Your task to perform on an android device: Open Reddit.com Image 0: 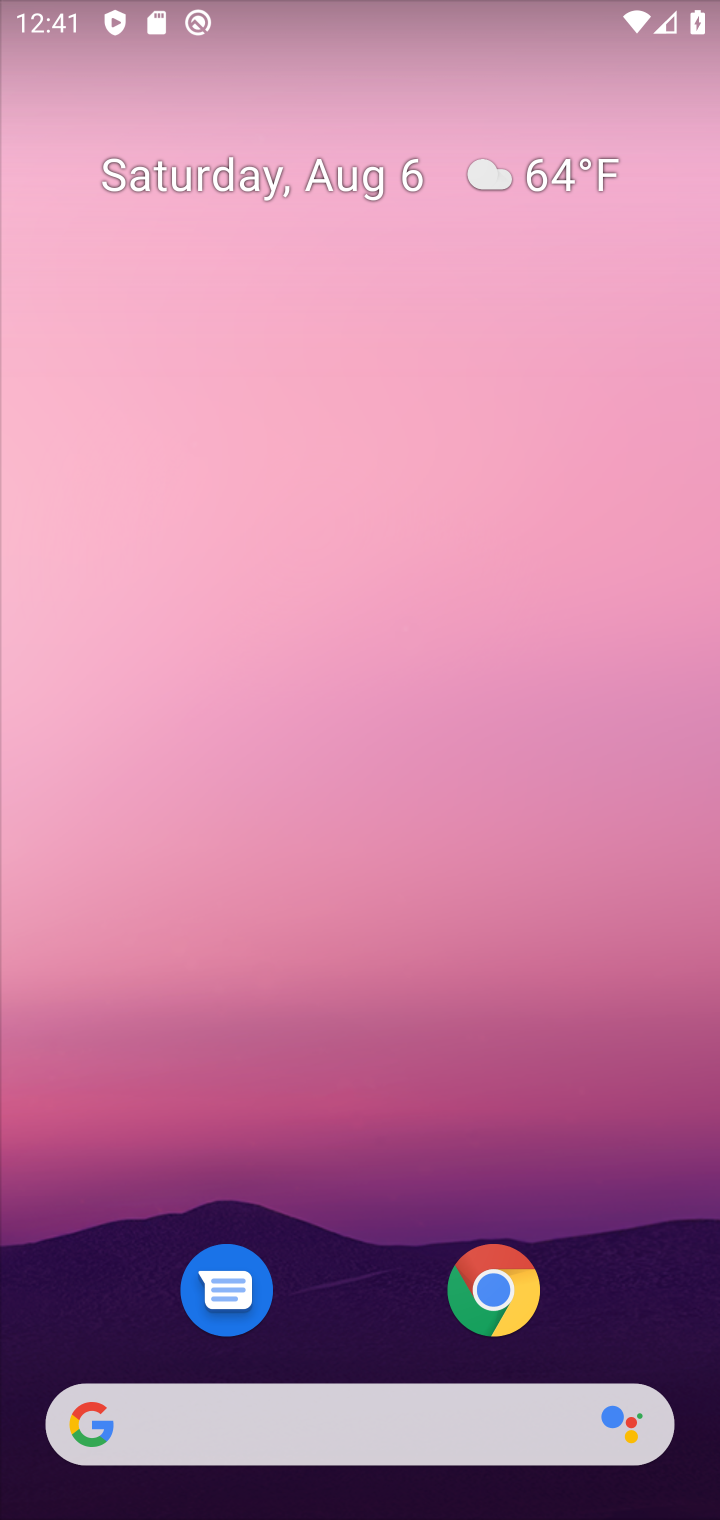
Step 0: click (484, 1322)
Your task to perform on an android device: Open Reddit.com Image 1: 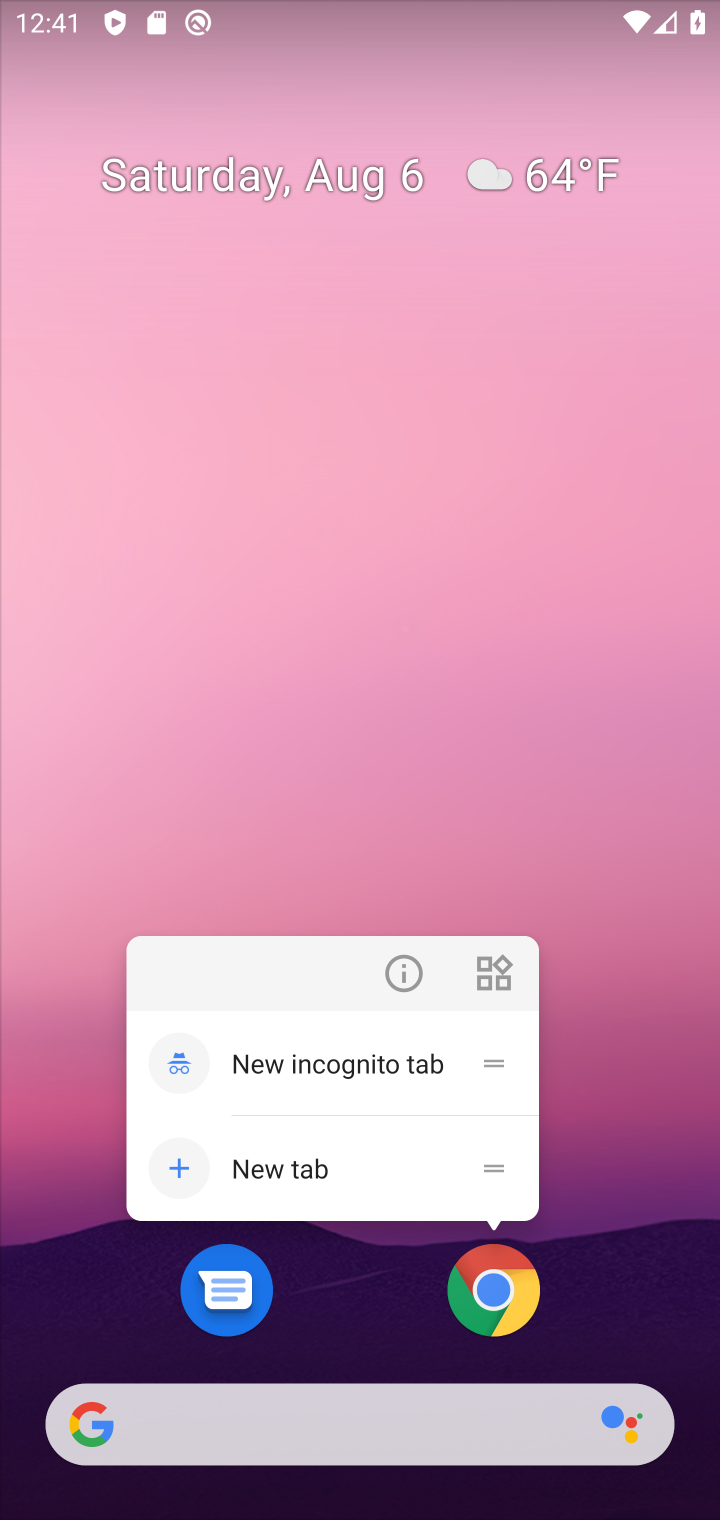
Step 1: click (479, 1292)
Your task to perform on an android device: Open Reddit.com Image 2: 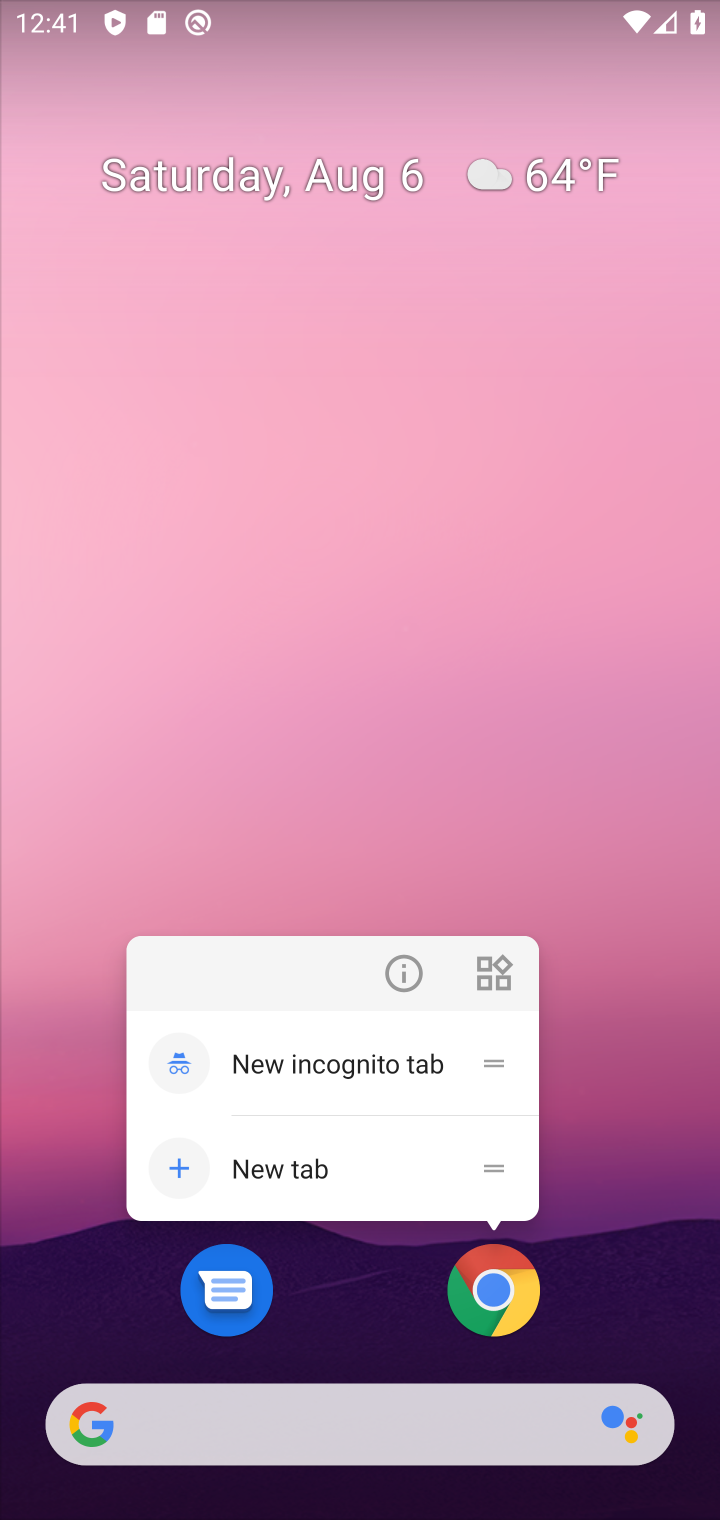
Step 2: click (511, 1293)
Your task to perform on an android device: Open Reddit.com Image 3: 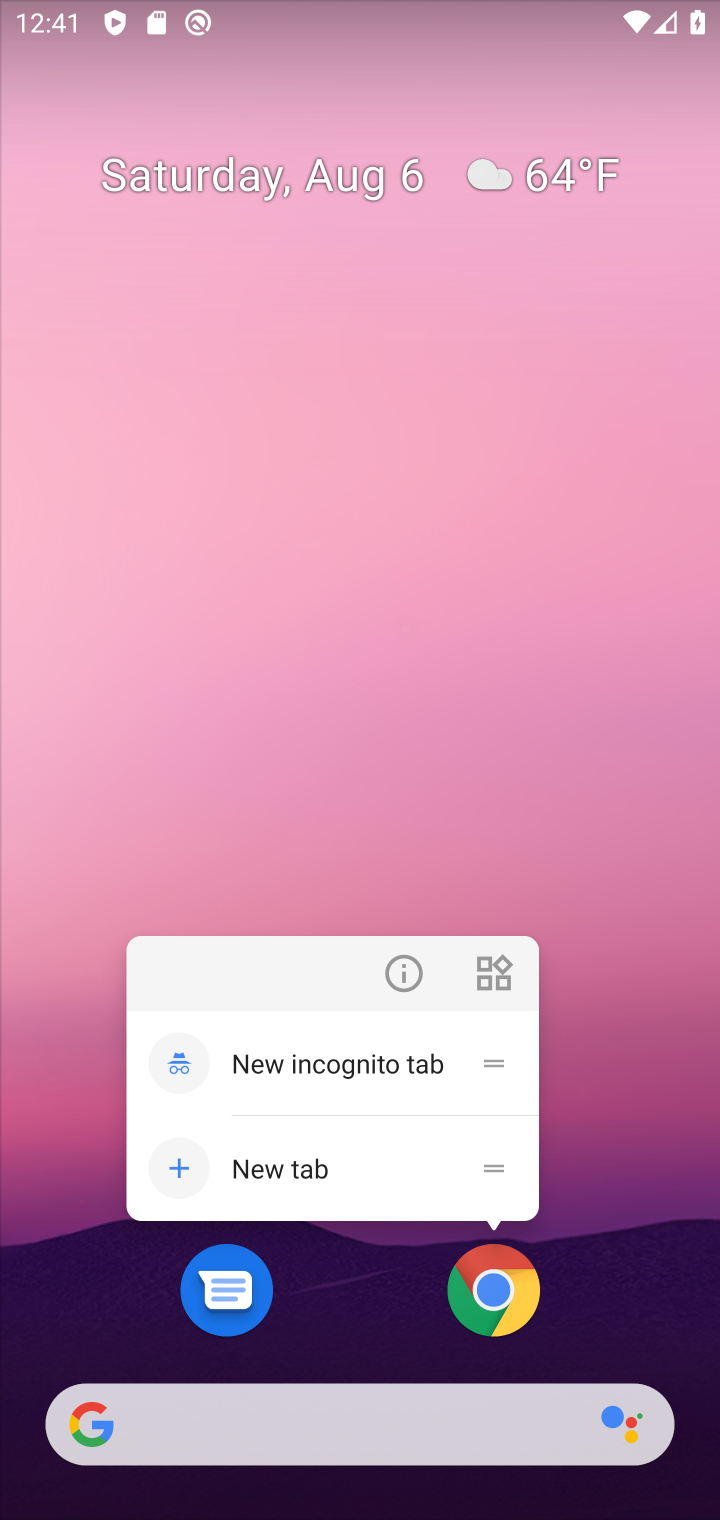
Step 3: click (523, 1272)
Your task to perform on an android device: Open Reddit.com Image 4: 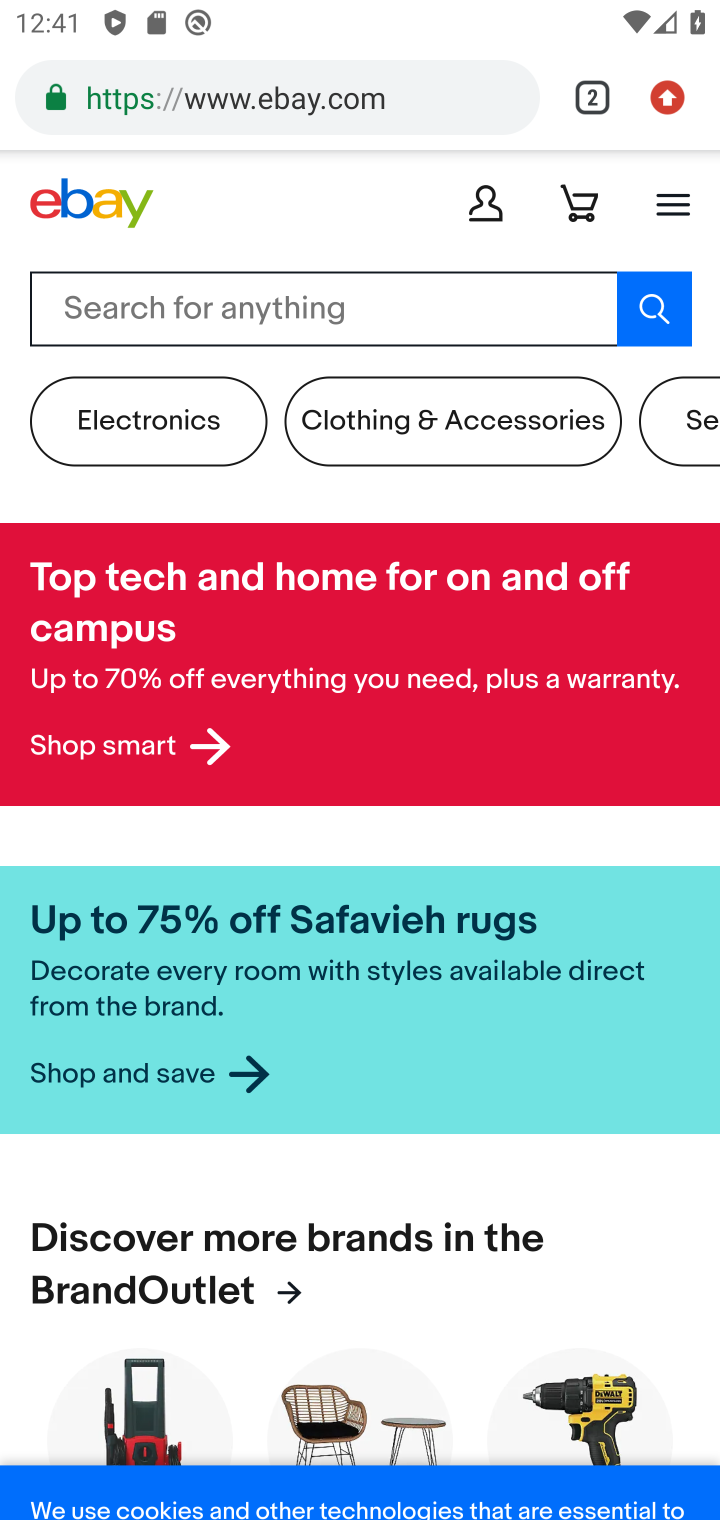
Step 4: click (595, 104)
Your task to perform on an android device: Open Reddit.com Image 5: 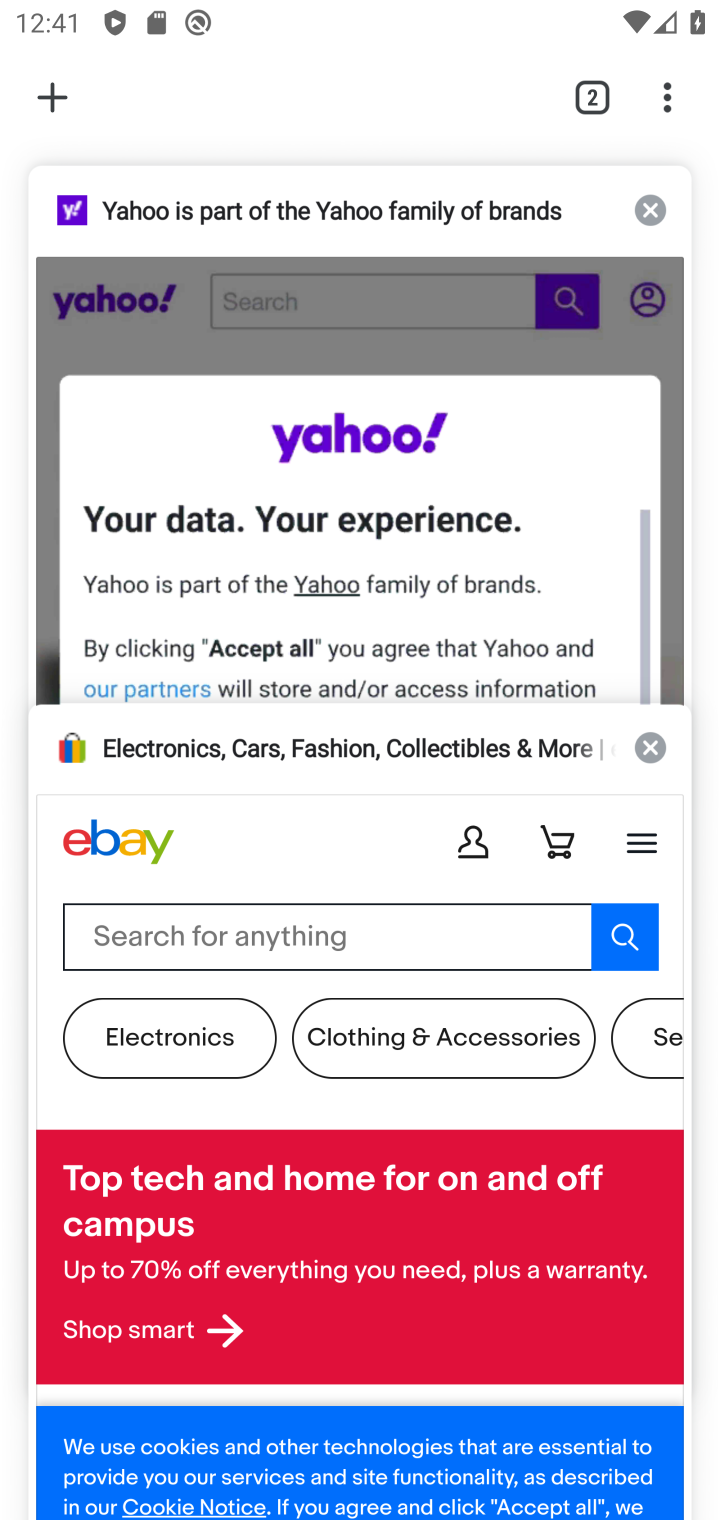
Step 5: click (56, 85)
Your task to perform on an android device: Open Reddit.com Image 6: 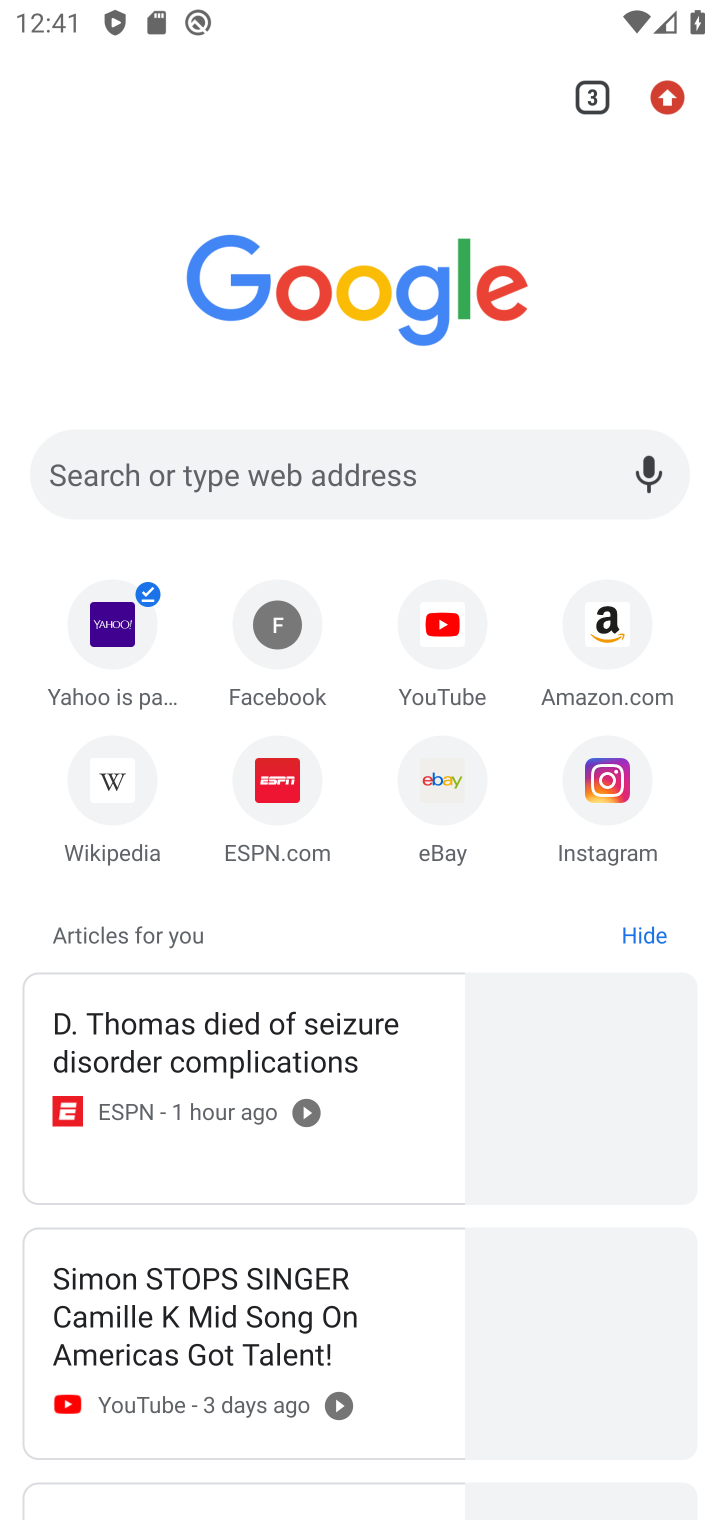
Step 6: click (278, 468)
Your task to perform on an android device: Open Reddit.com Image 7: 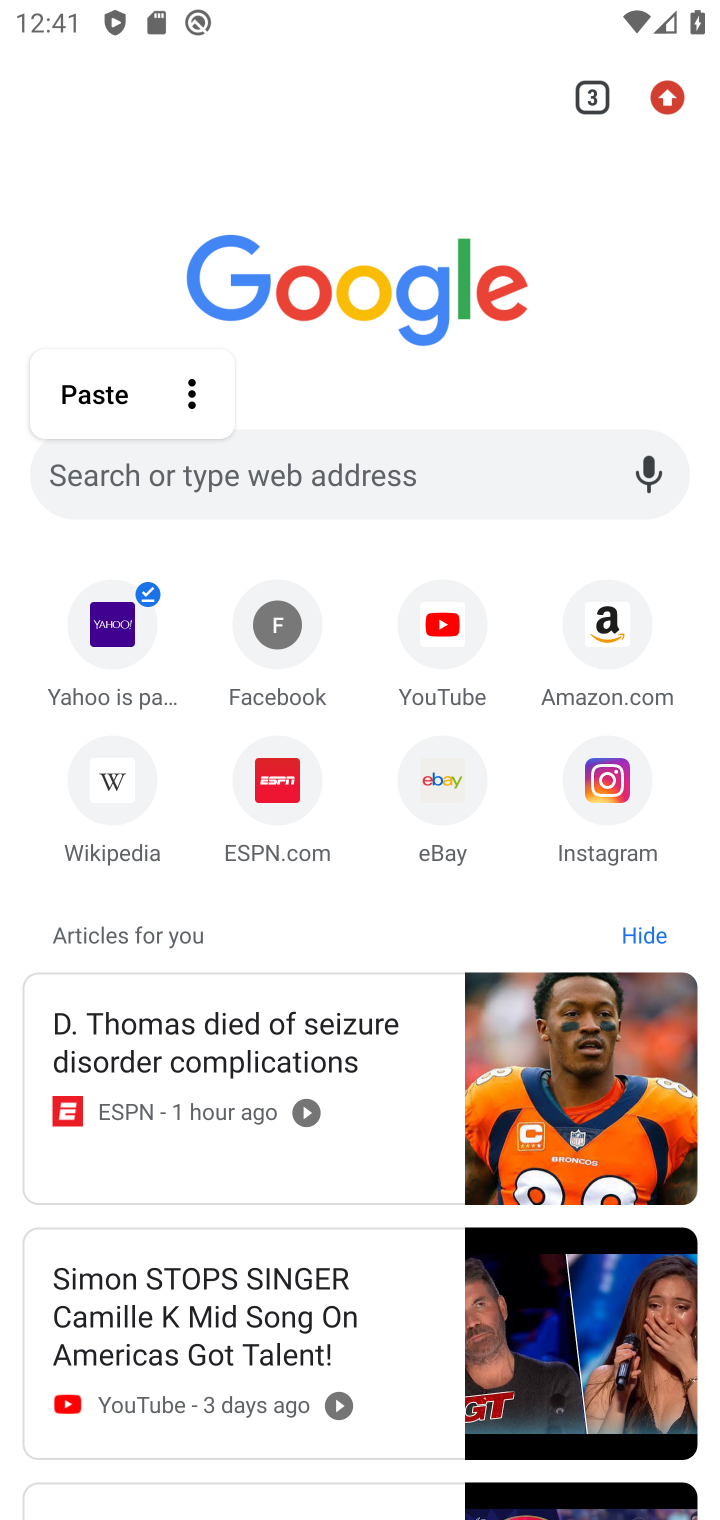
Step 7: click (324, 467)
Your task to perform on an android device: Open Reddit.com Image 8: 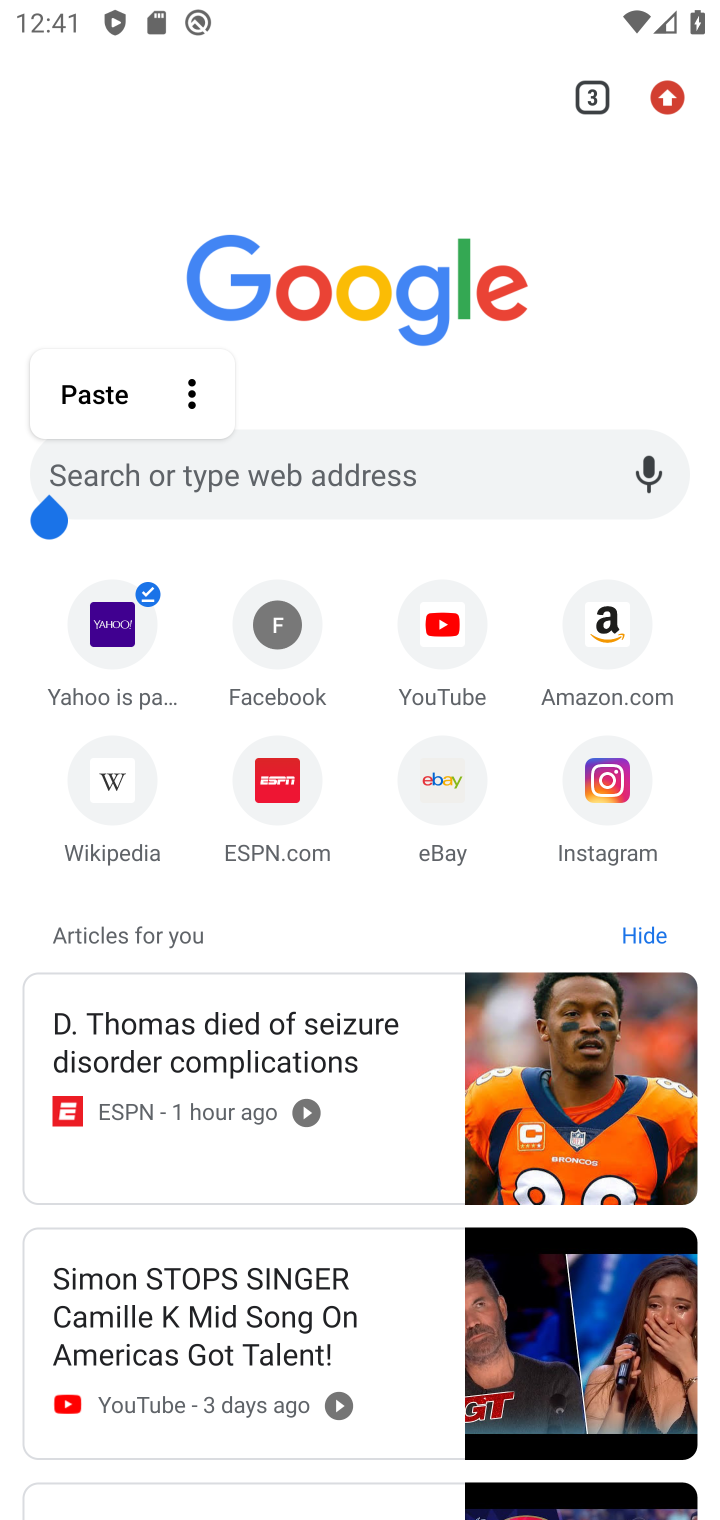
Step 8: type "Reddit.com"
Your task to perform on an android device: Open Reddit.com Image 9: 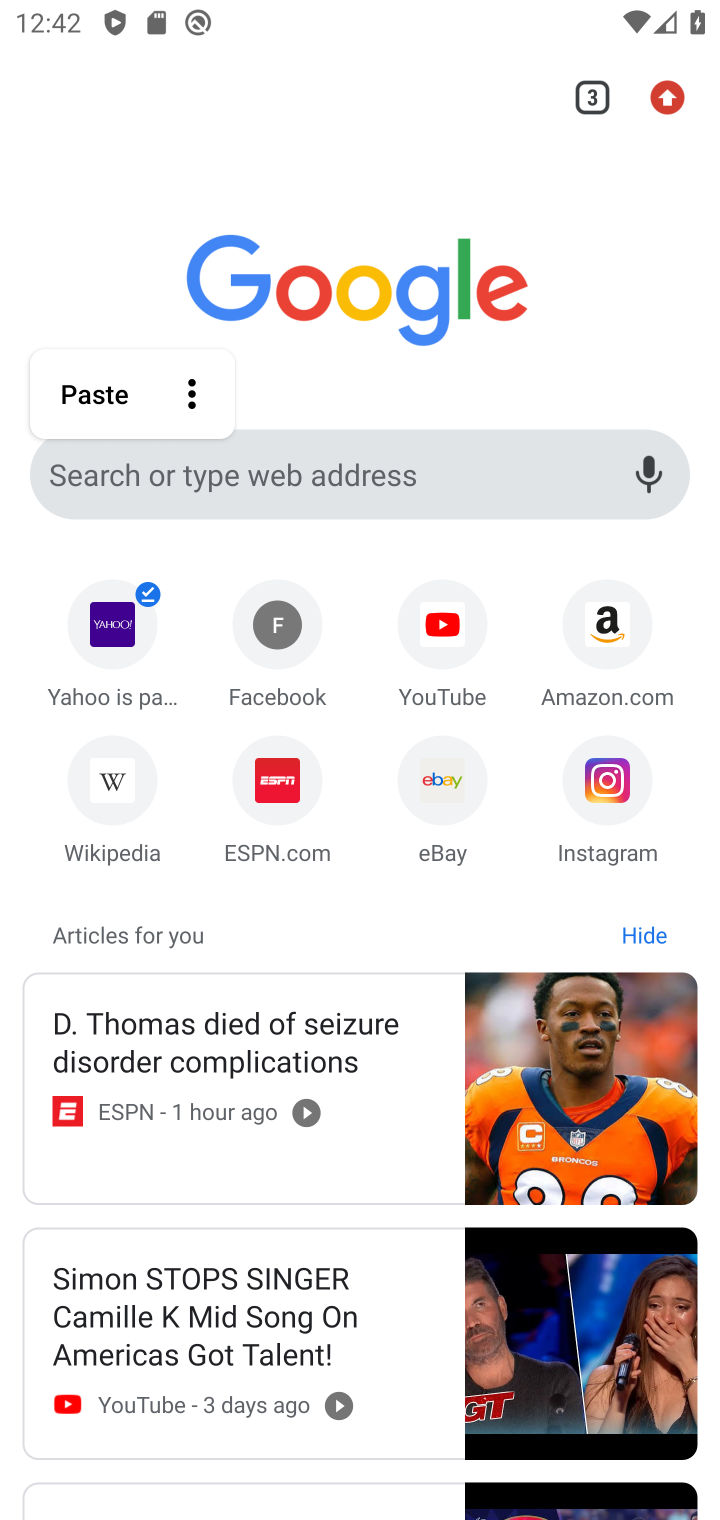
Step 9: task complete